Your task to perform on an android device: snooze an email in the gmail app Image 0: 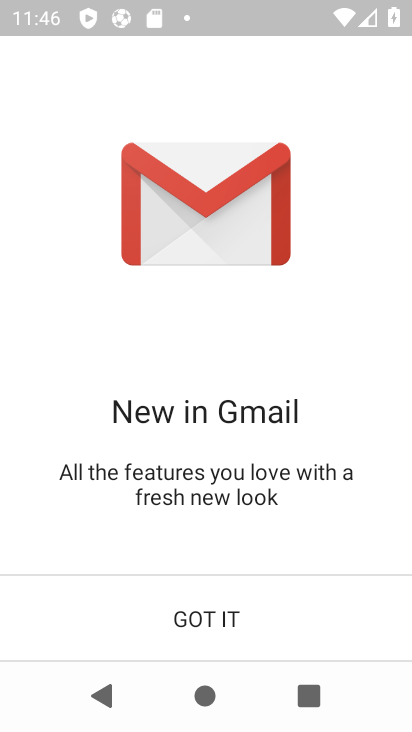
Step 0: click (210, 609)
Your task to perform on an android device: snooze an email in the gmail app Image 1: 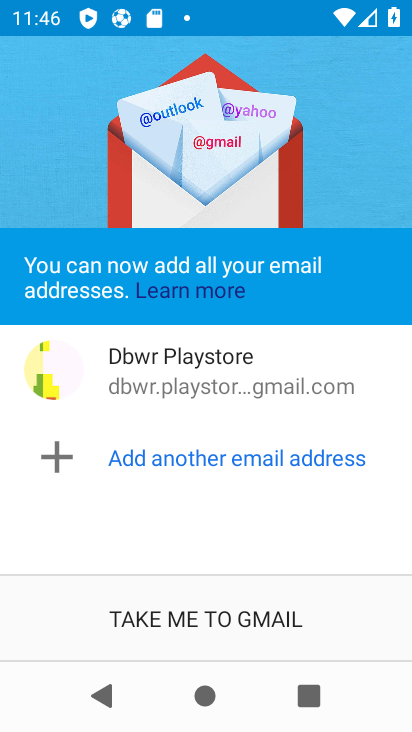
Step 1: click (210, 609)
Your task to perform on an android device: snooze an email in the gmail app Image 2: 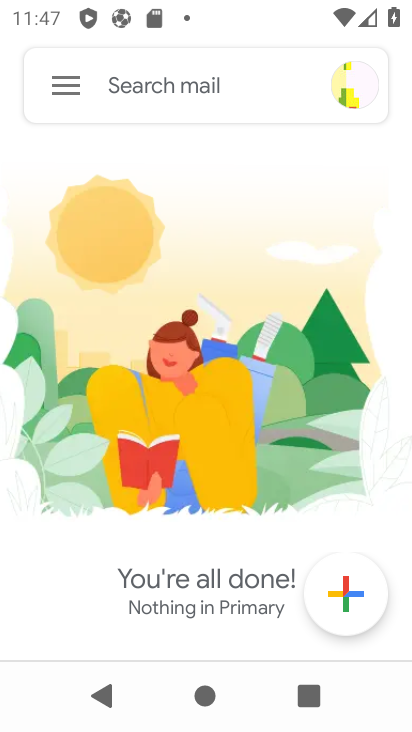
Step 2: click (61, 88)
Your task to perform on an android device: snooze an email in the gmail app Image 3: 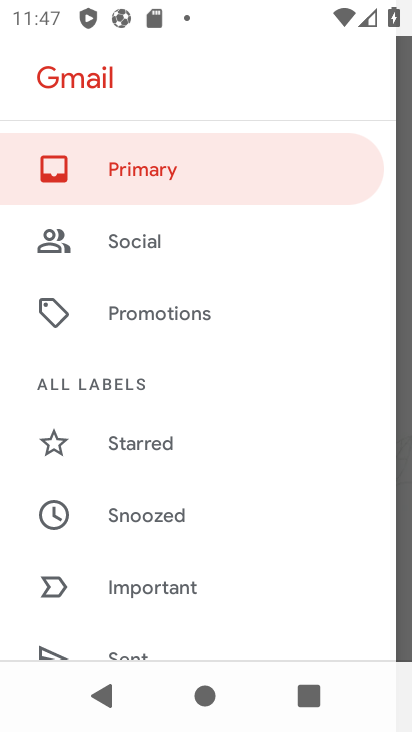
Step 3: drag from (254, 578) to (268, 268)
Your task to perform on an android device: snooze an email in the gmail app Image 4: 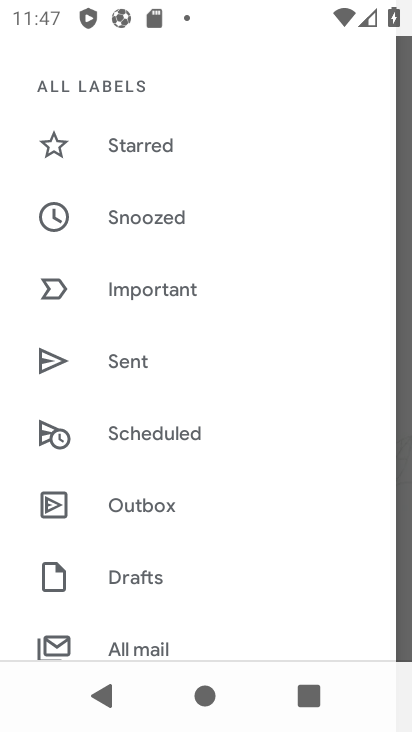
Step 4: drag from (225, 544) to (228, 266)
Your task to perform on an android device: snooze an email in the gmail app Image 5: 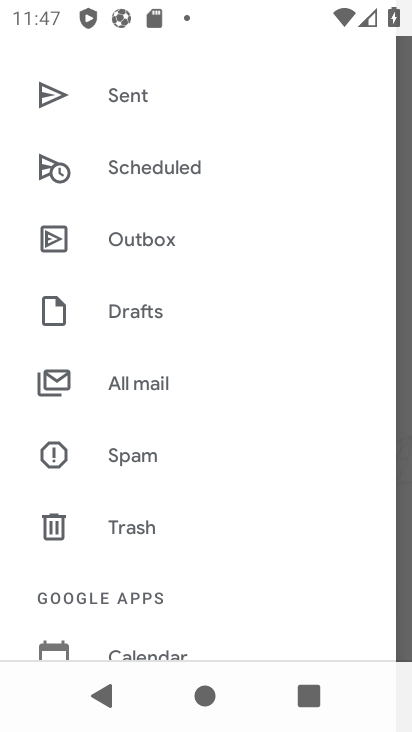
Step 5: click (130, 384)
Your task to perform on an android device: snooze an email in the gmail app Image 6: 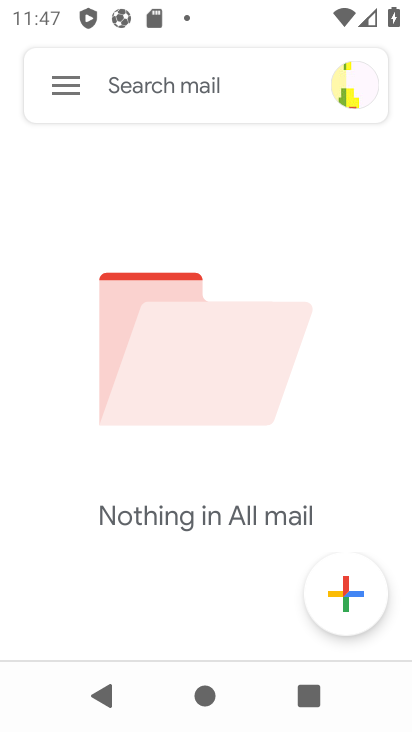
Step 6: task complete